Your task to perform on an android device: set the timer Image 0: 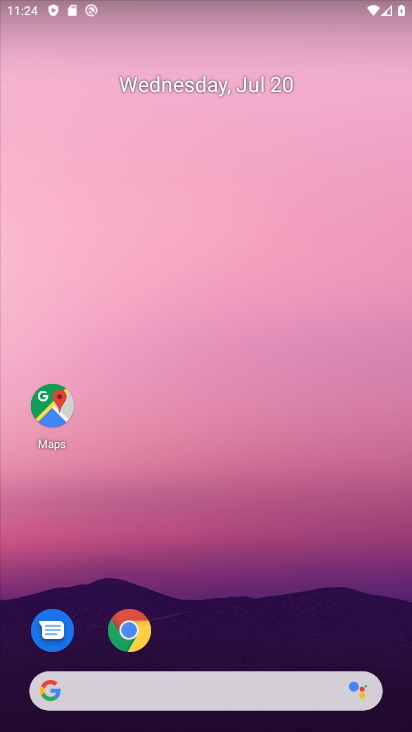
Step 0: drag from (51, 696) to (315, 48)
Your task to perform on an android device: set the timer Image 1: 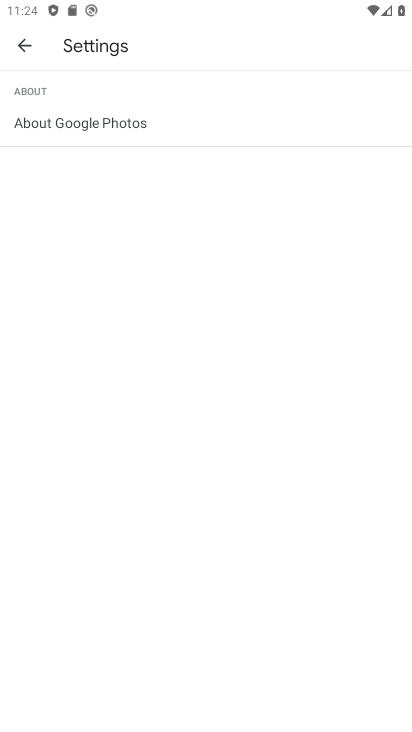
Step 1: click (17, 45)
Your task to perform on an android device: set the timer Image 2: 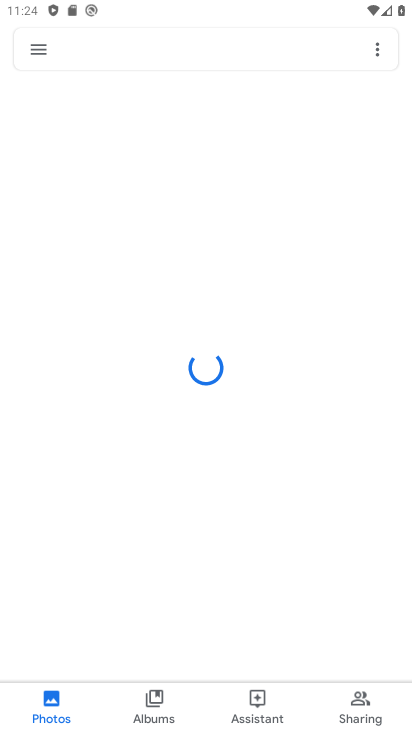
Step 2: press home button
Your task to perform on an android device: set the timer Image 3: 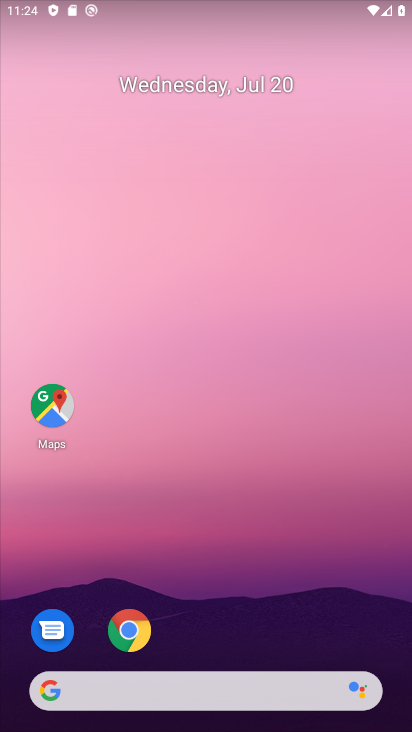
Step 3: drag from (15, 697) to (283, 52)
Your task to perform on an android device: set the timer Image 4: 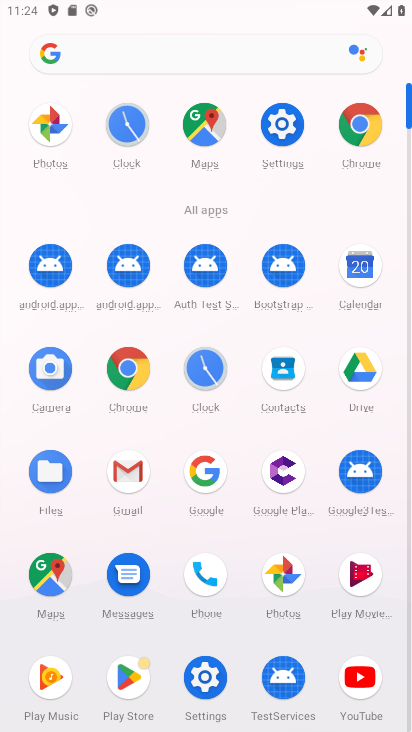
Step 4: click (199, 372)
Your task to perform on an android device: set the timer Image 5: 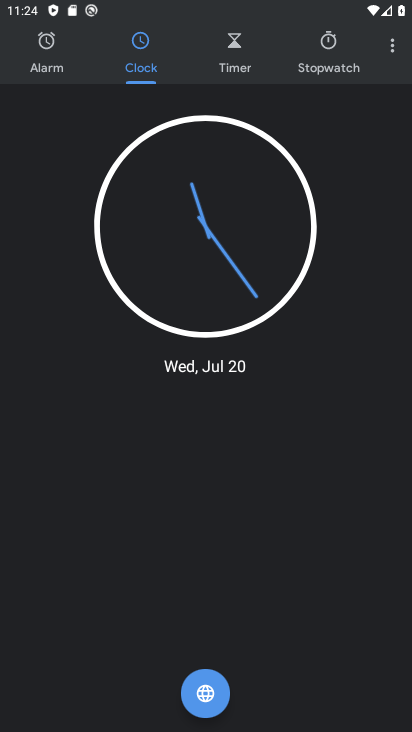
Step 5: click (200, 236)
Your task to perform on an android device: set the timer Image 6: 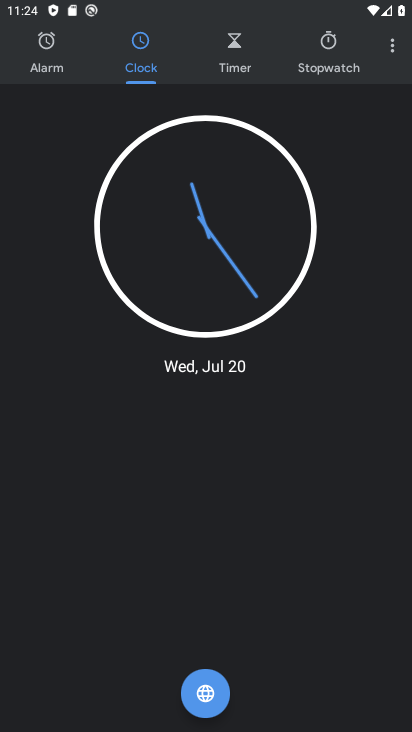
Step 6: click (217, 176)
Your task to perform on an android device: set the timer Image 7: 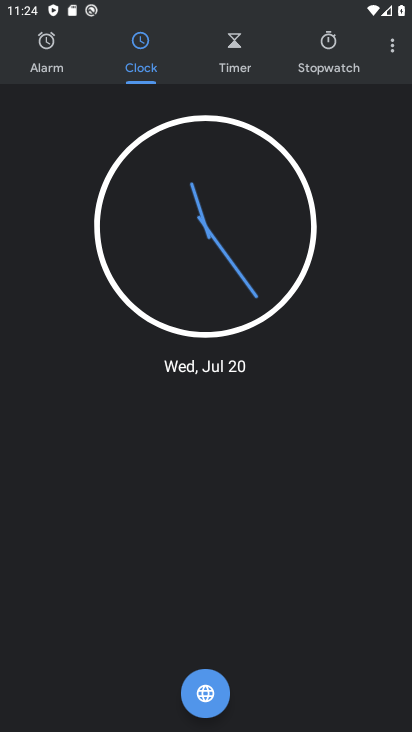
Step 7: click (239, 49)
Your task to perform on an android device: set the timer Image 8: 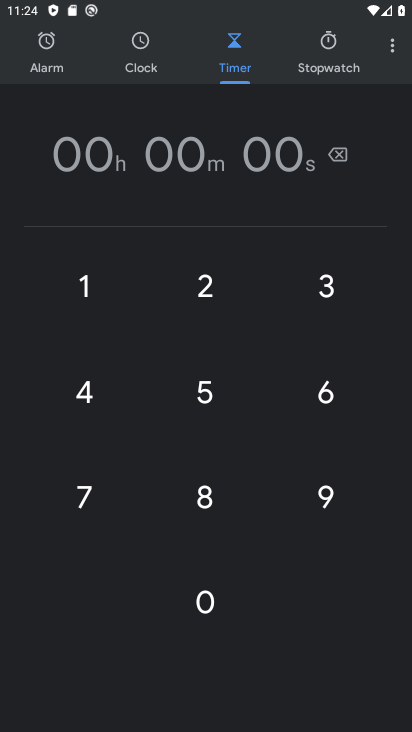
Step 8: click (201, 411)
Your task to perform on an android device: set the timer Image 9: 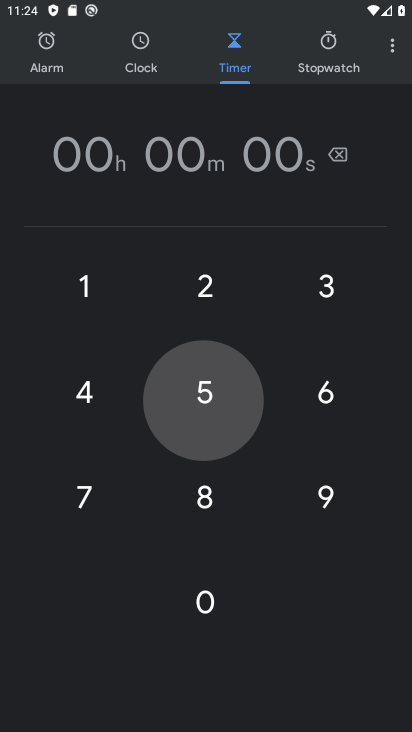
Step 9: click (162, 388)
Your task to perform on an android device: set the timer Image 10: 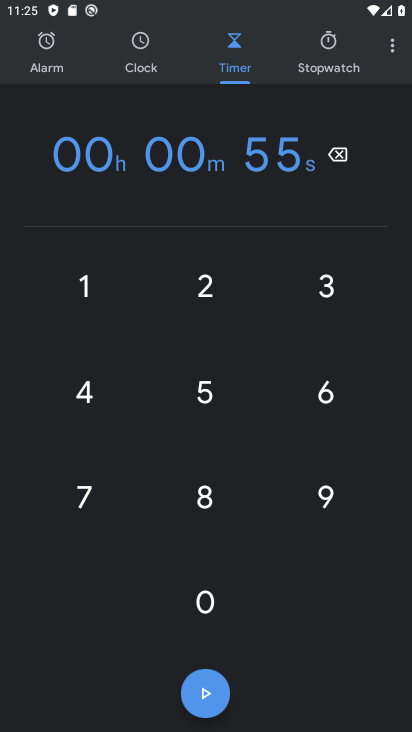
Step 10: click (99, 365)
Your task to perform on an android device: set the timer Image 11: 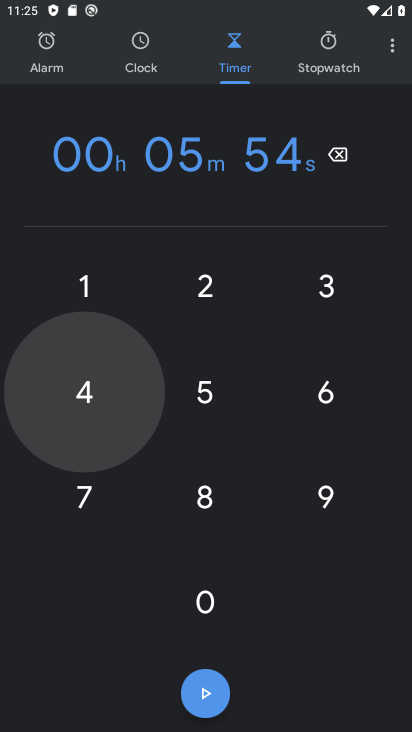
Step 11: click (98, 309)
Your task to perform on an android device: set the timer Image 12: 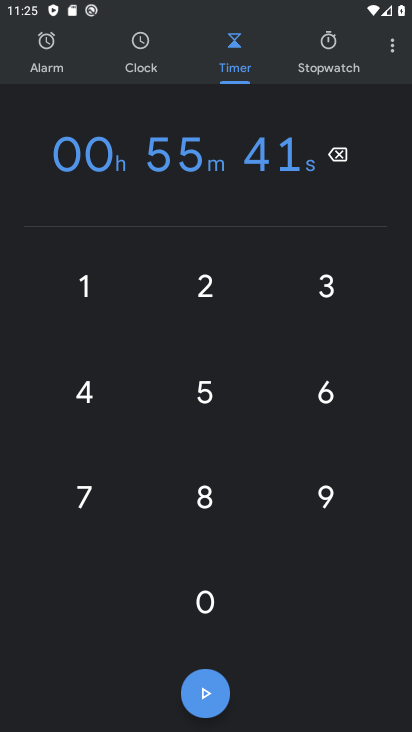
Step 12: click (213, 697)
Your task to perform on an android device: set the timer Image 13: 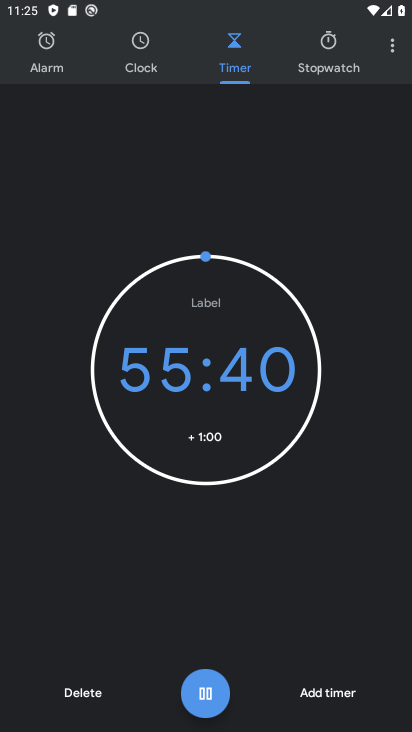
Step 13: click (207, 687)
Your task to perform on an android device: set the timer Image 14: 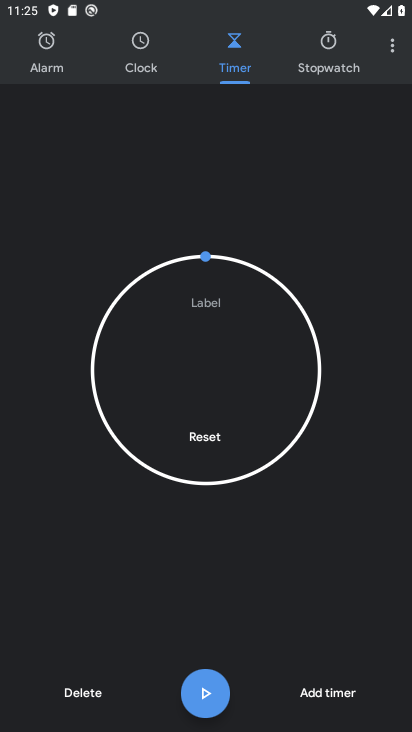
Step 14: task complete